Your task to perform on an android device: allow cookies in the chrome app Image 0: 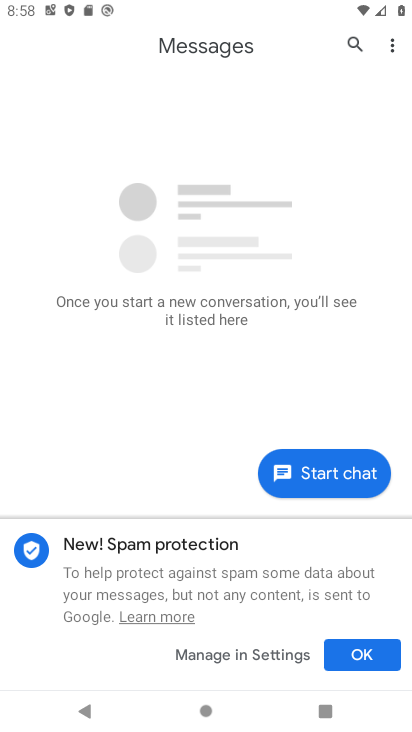
Step 0: press home button
Your task to perform on an android device: allow cookies in the chrome app Image 1: 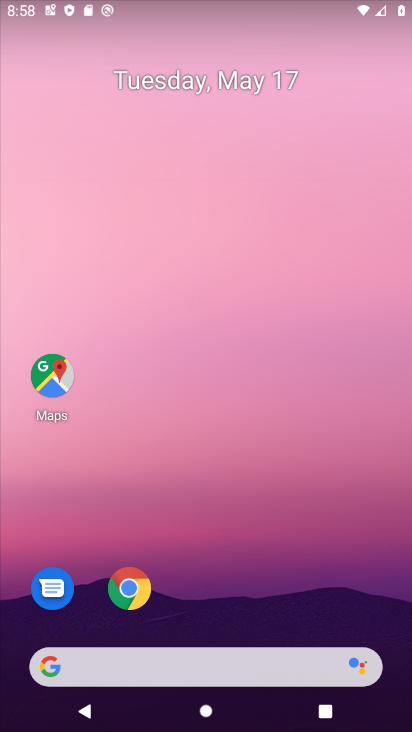
Step 1: click (123, 579)
Your task to perform on an android device: allow cookies in the chrome app Image 2: 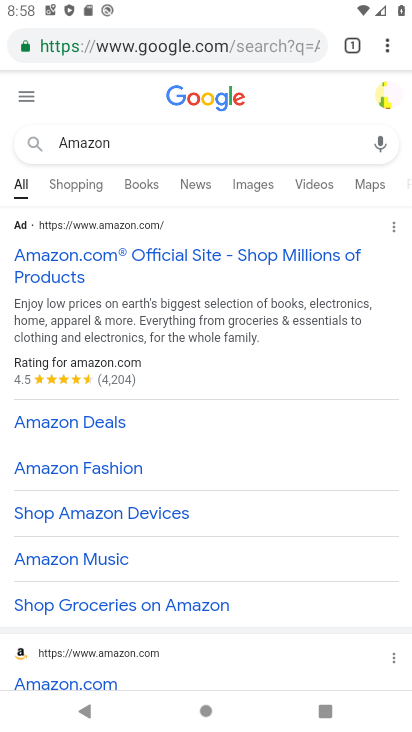
Step 2: click (383, 40)
Your task to perform on an android device: allow cookies in the chrome app Image 3: 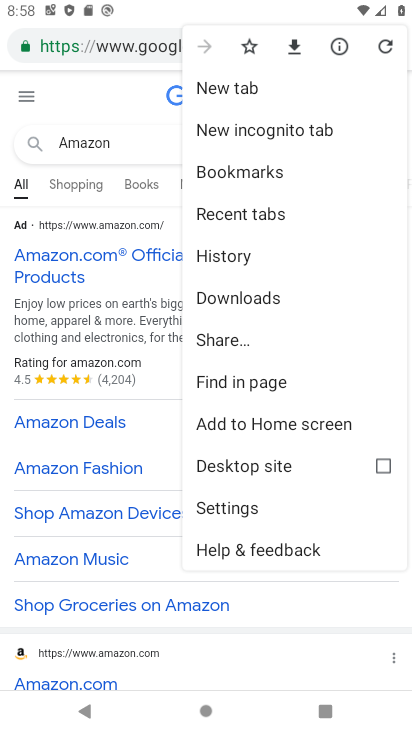
Step 3: click (223, 511)
Your task to perform on an android device: allow cookies in the chrome app Image 4: 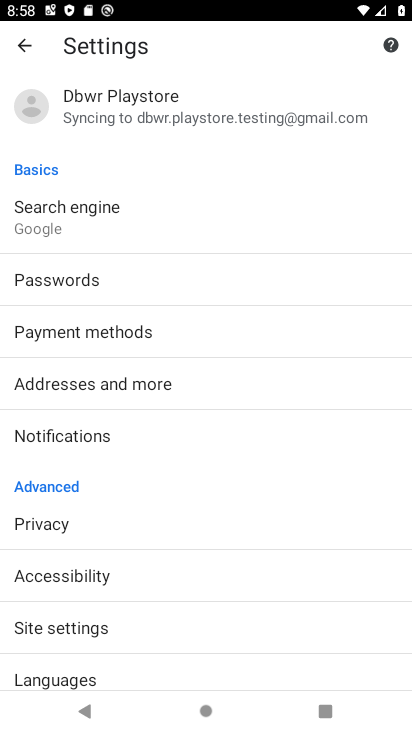
Step 4: drag from (299, 623) to (242, 302)
Your task to perform on an android device: allow cookies in the chrome app Image 5: 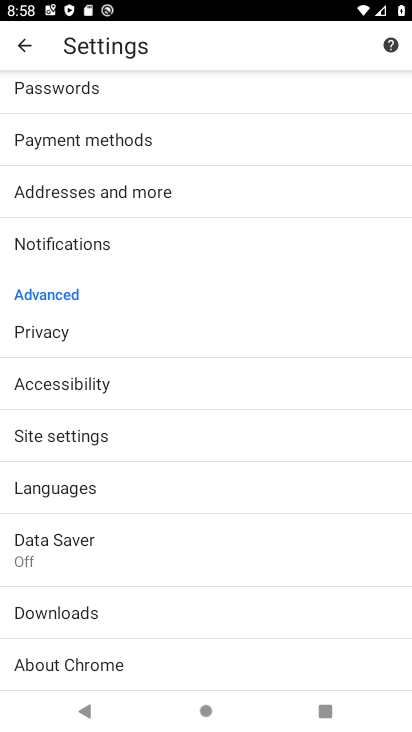
Step 5: drag from (248, 660) to (248, 364)
Your task to perform on an android device: allow cookies in the chrome app Image 6: 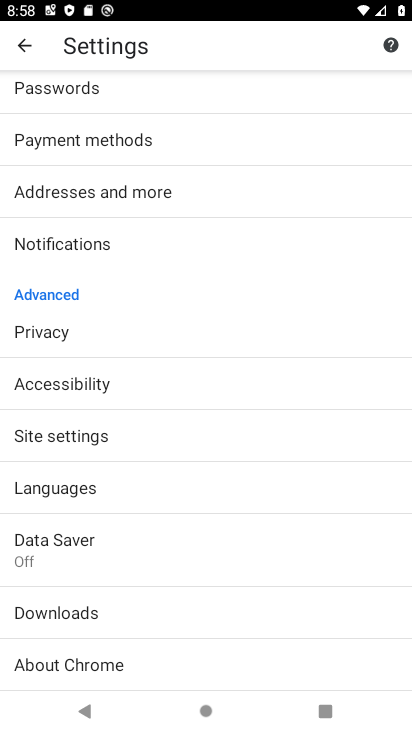
Step 6: click (52, 426)
Your task to perform on an android device: allow cookies in the chrome app Image 7: 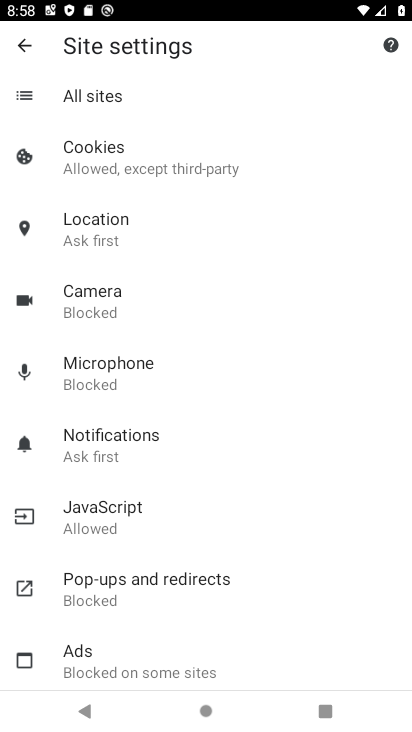
Step 7: click (90, 149)
Your task to perform on an android device: allow cookies in the chrome app Image 8: 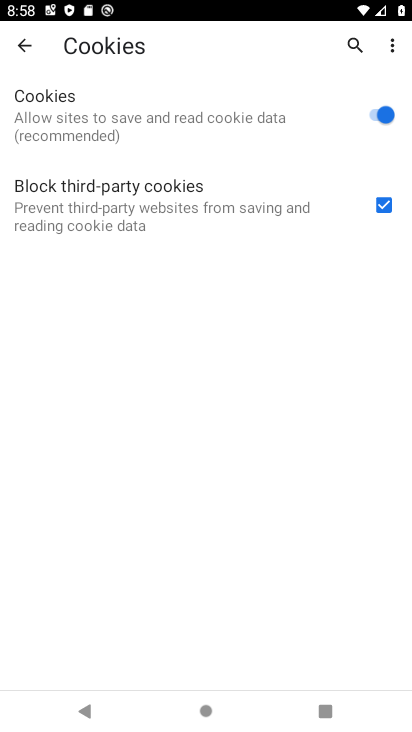
Step 8: task complete